Your task to perform on an android device: check battery use Image 0: 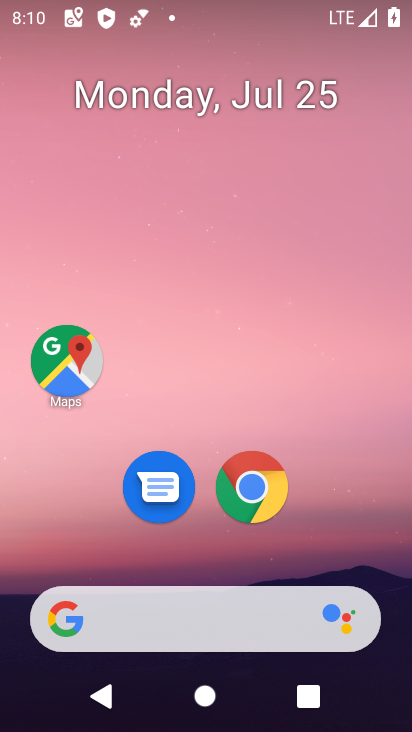
Step 0: drag from (201, 579) to (311, 23)
Your task to perform on an android device: check battery use Image 1: 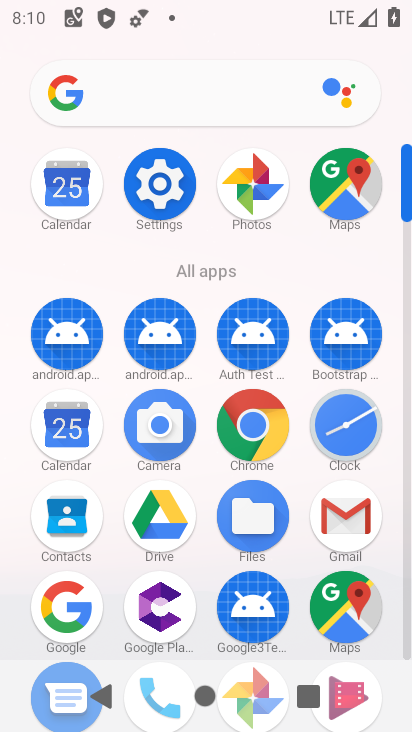
Step 1: click (148, 181)
Your task to perform on an android device: check battery use Image 2: 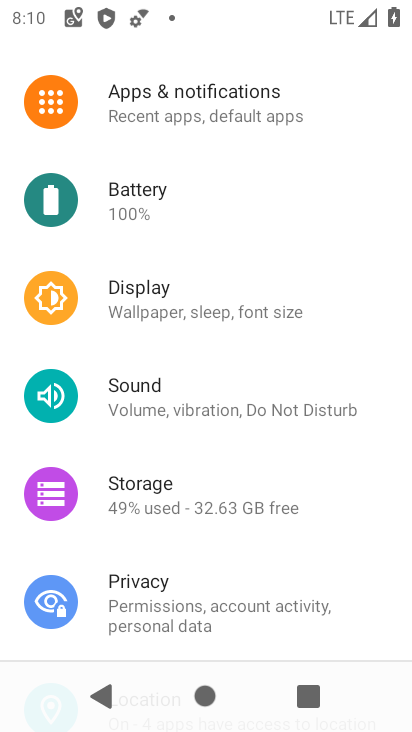
Step 2: click (155, 202)
Your task to perform on an android device: check battery use Image 3: 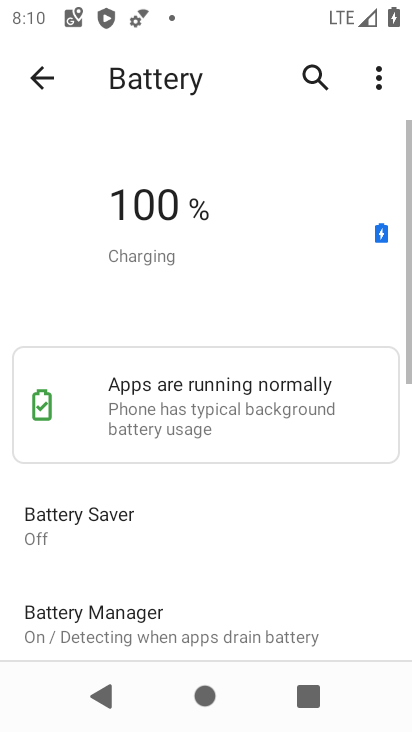
Step 3: drag from (201, 601) to (235, 454)
Your task to perform on an android device: check battery use Image 4: 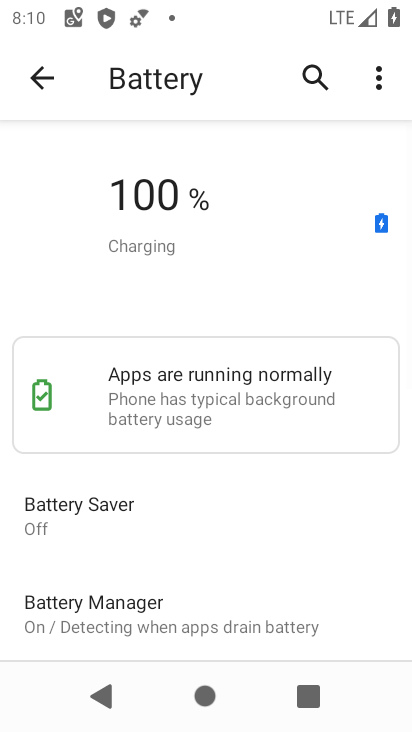
Step 4: click (379, 69)
Your task to perform on an android device: check battery use Image 5: 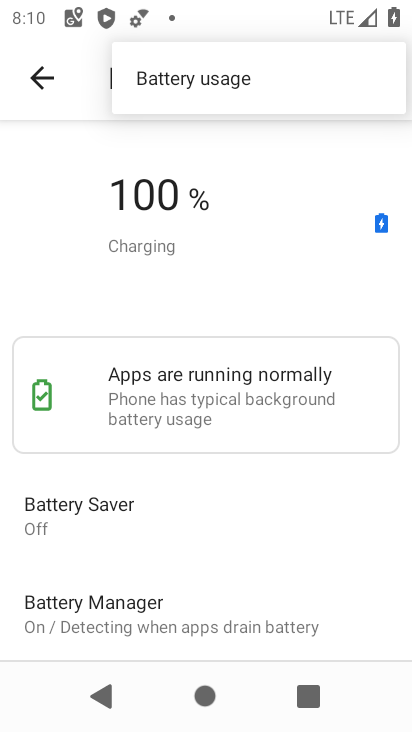
Step 5: click (218, 72)
Your task to perform on an android device: check battery use Image 6: 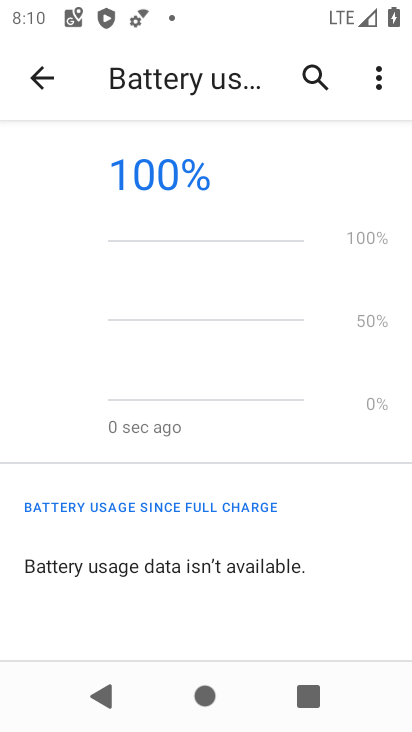
Step 6: task complete